Your task to perform on an android device: change the clock display to digital Image 0: 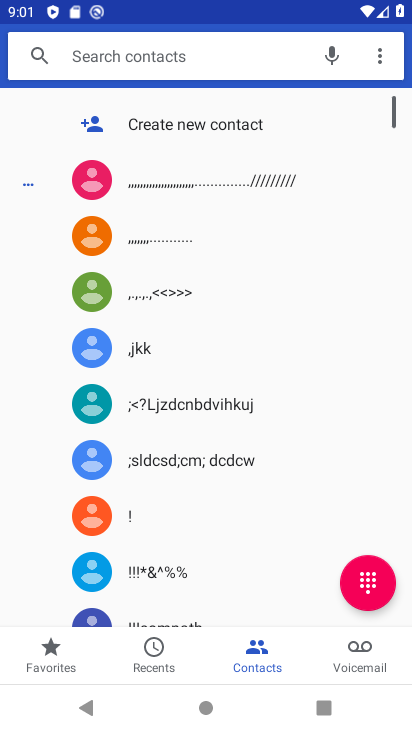
Step 0: press home button
Your task to perform on an android device: change the clock display to digital Image 1: 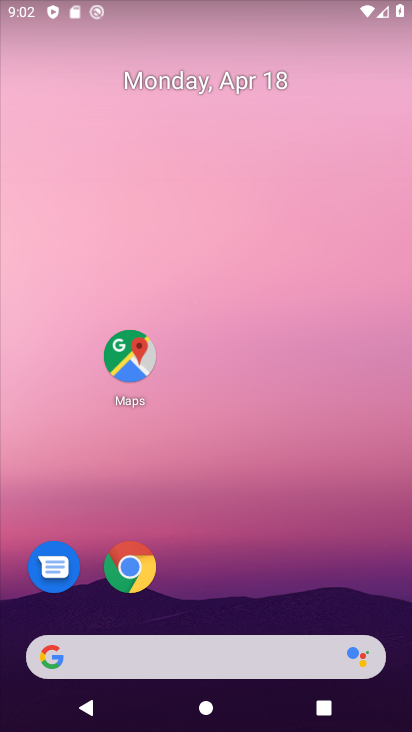
Step 1: drag from (244, 688) to (289, 381)
Your task to perform on an android device: change the clock display to digital Image 2: 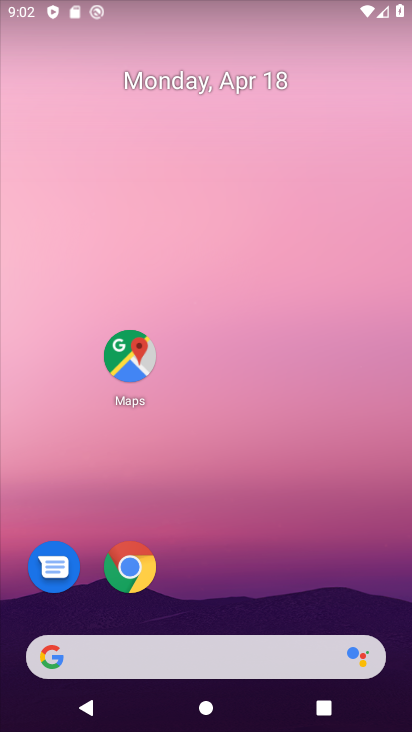
Step 2: drag from (317, 606) to (351, 291)
Your task to perform on an android device: change the clock display to digital Image 3: 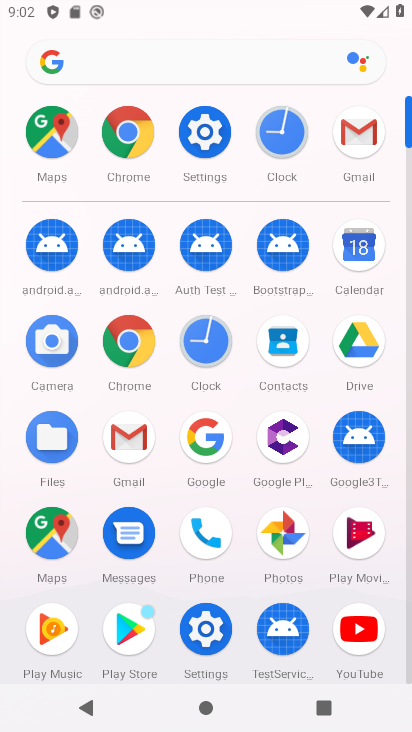
Step 3: click (204, 362)
Your task to perform on an android device: change the clock display to digital Image 4: 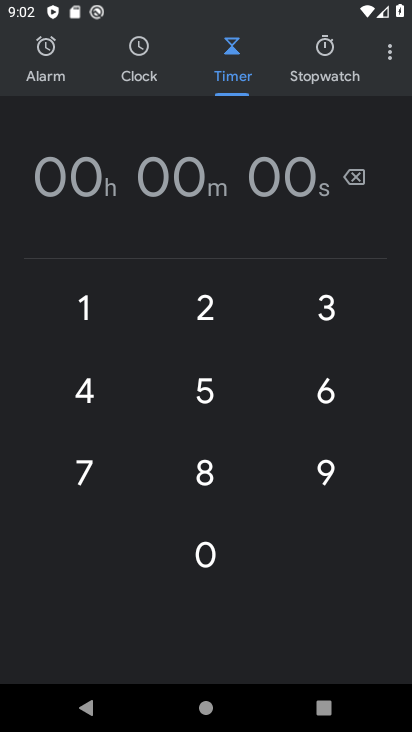
Step 4: click (393, 50)
Your task to perform on an android device: change the clock display to digital Image 5: 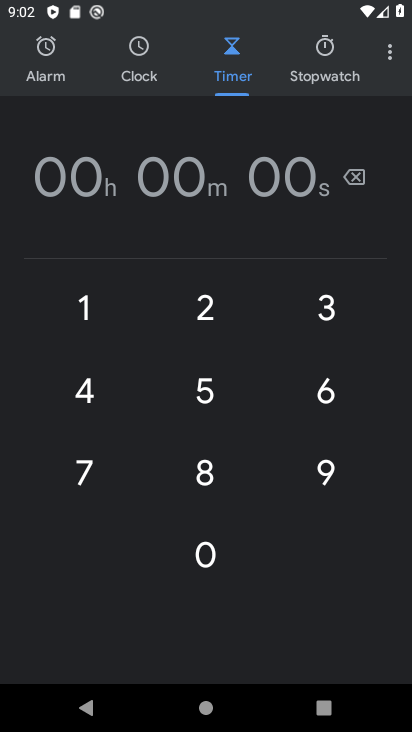
Step 5: click (380, 66)
Your task to perform on an android device: change the clock display to digital Image 6: 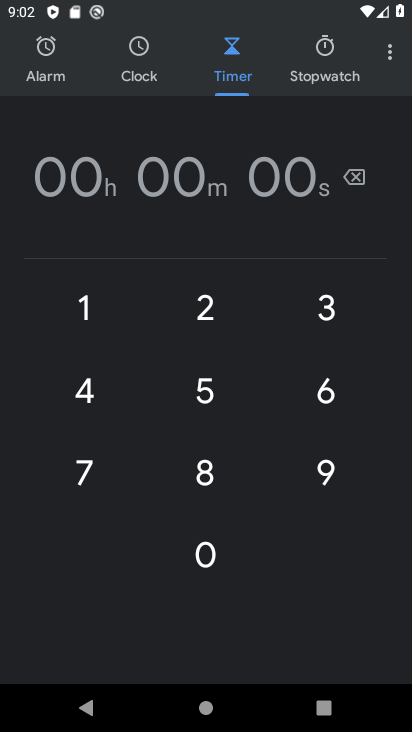
Step 6: click (387, 52)
Your task to perform on an android device: change the clock display to digital Image 7: 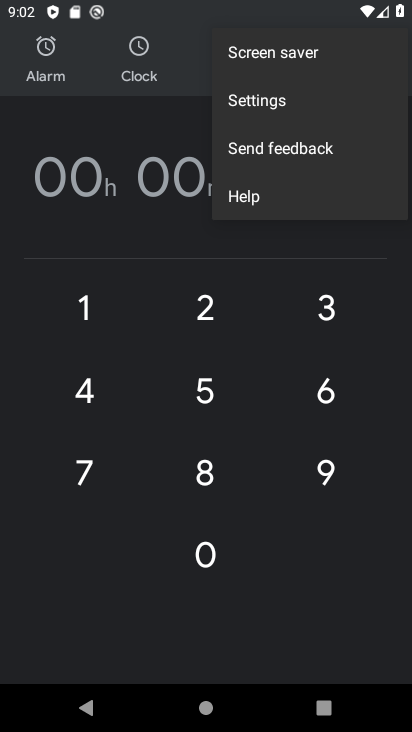
Step 7: click (267, 98)
Your task to perform on an android device: change the clock display to digital Image 8: 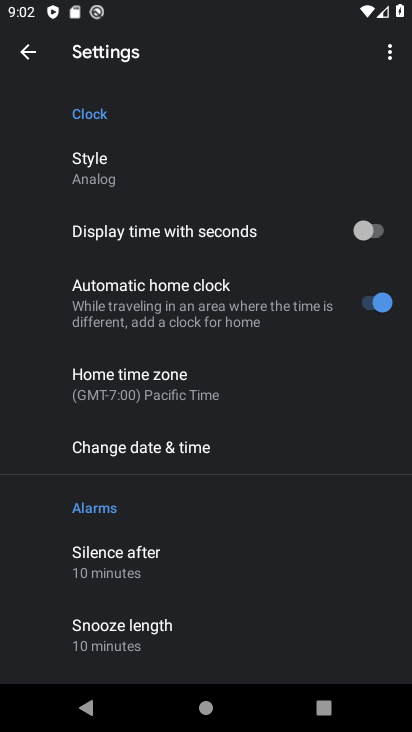
Step 8: click (141, 189)
Your task to perform on an android device: change the clock display to digital Image 9: 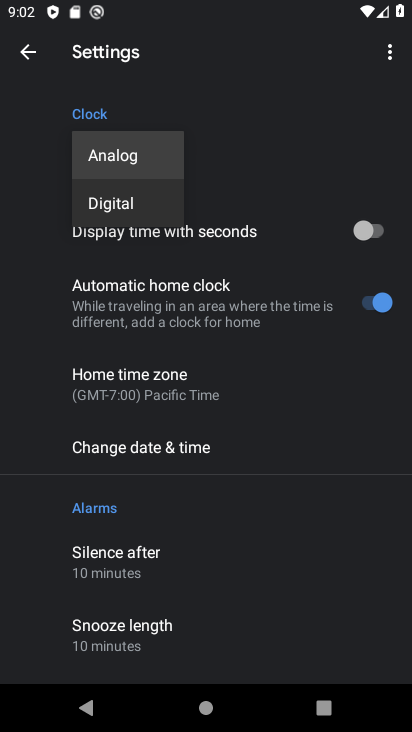
Step 9: click (132, 209)
Your task to perform on an android device: change the clock display to digital Image 10: 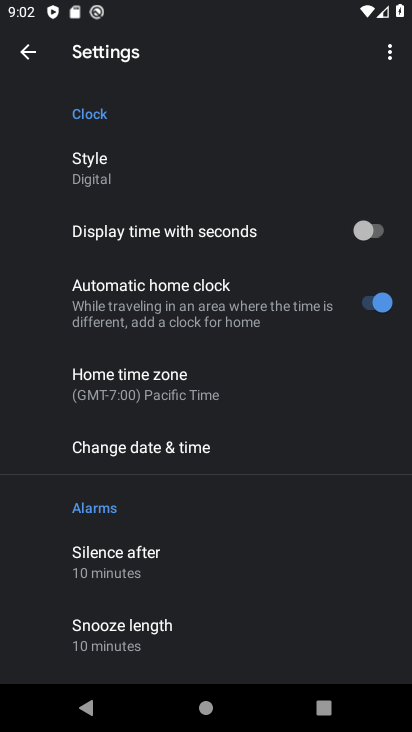
Step 10: task complete